Your task to perform on an android device: Is it going to rain this weekend? Image 0: 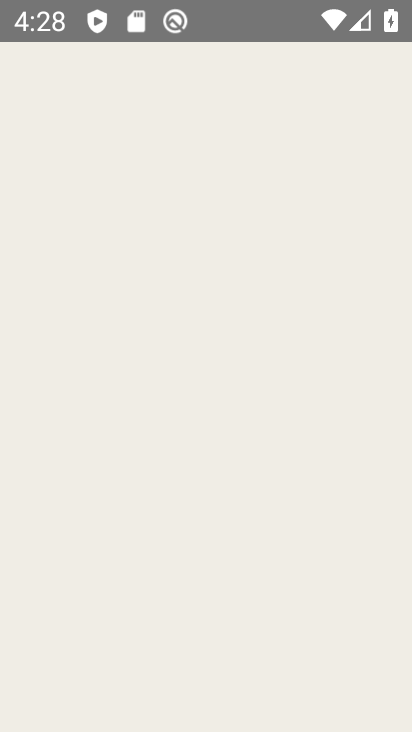
Step 0: click (244, 521)
Your task to perform on an android device: Is it going to rain this weekend? Image 1: 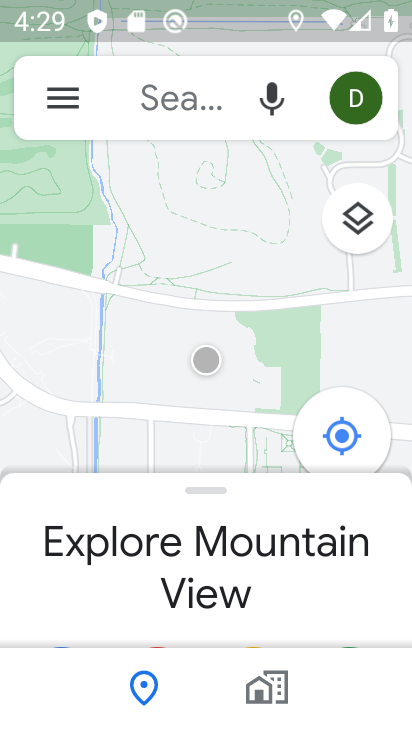
Step 1: press home button
Your task to perform on an android device: Is it going to rain this weekend? Image 2: 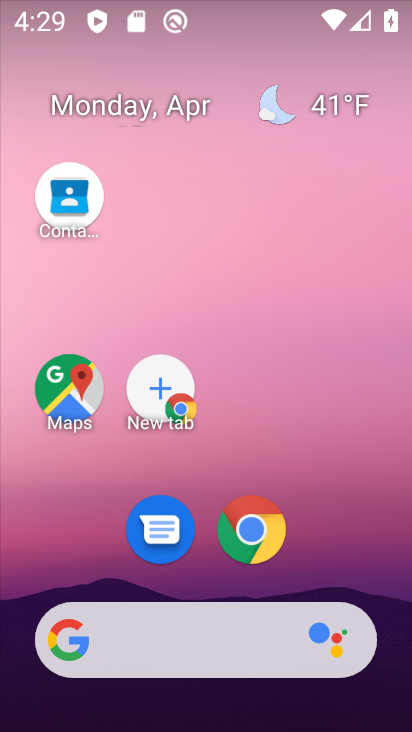
Step 2: click (307, 107)
Your task to perform on an android device: Is it going to rain this weekend? Image 3: 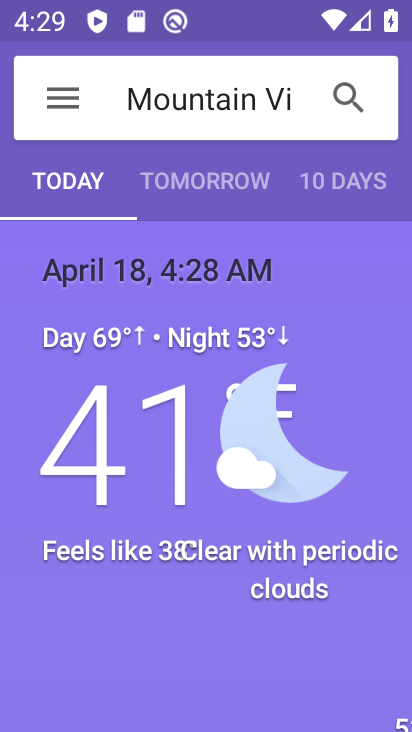
Step 3: click (178, 183)
Your task to perform on an android device: Is it going to rain this weekend? Image 4: 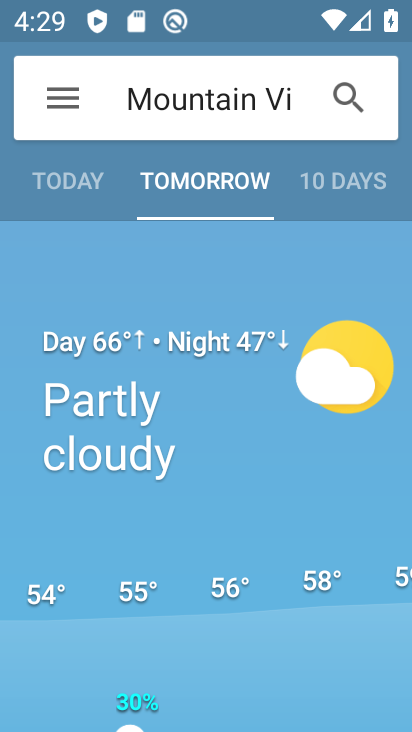
Step 4: click (331, 178)
Your task to perform on an android device: Is it going to rain this weekend? Image 5: 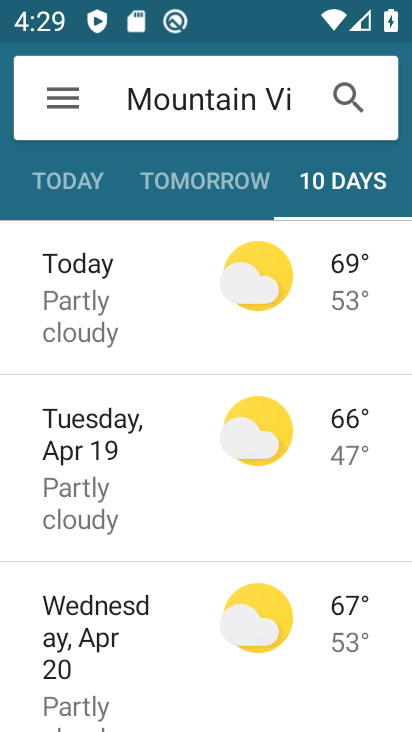
Step 5: task complete